Your task to perform on an android device: install app "Messages" Image 0: 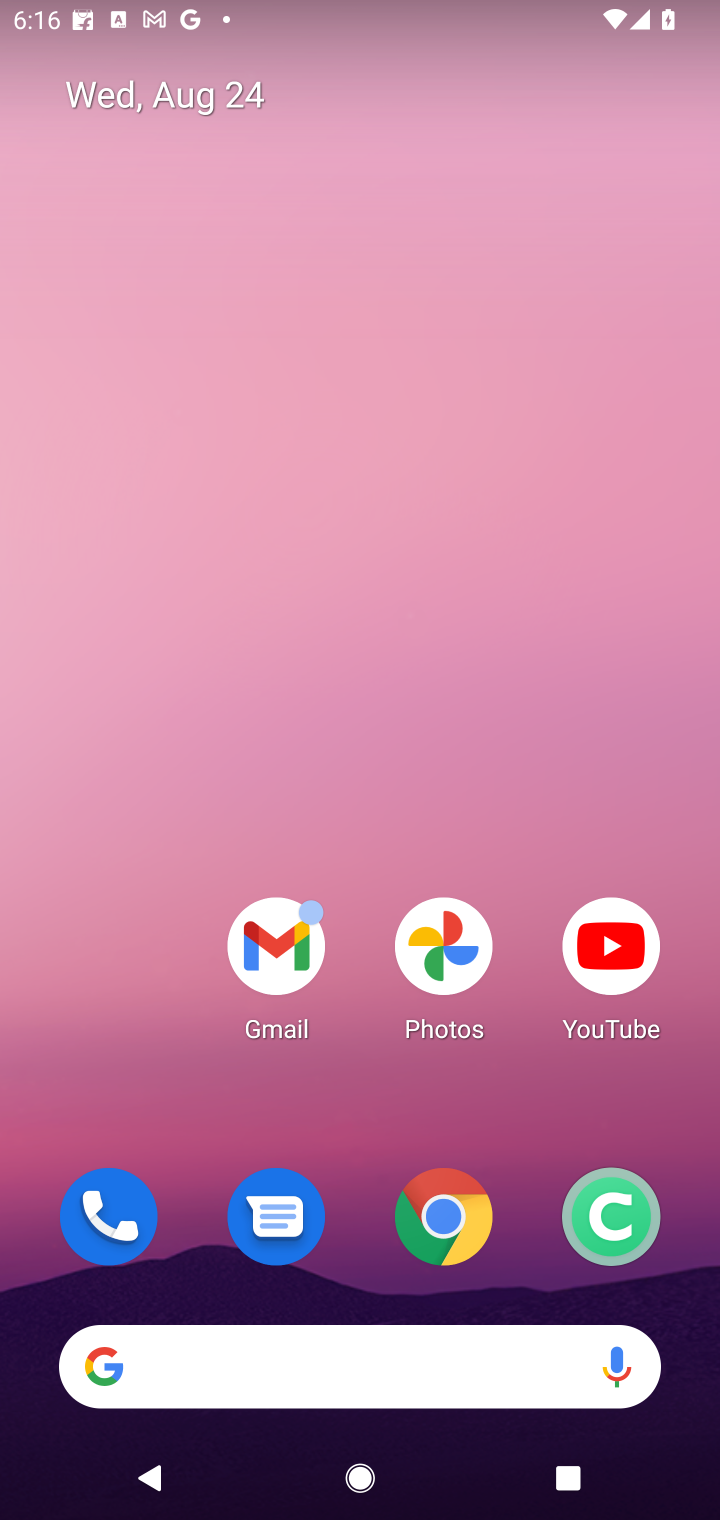
Step 0: drag from (367, 827) to (383, 153)
Your task to perform on an android device: install app "Messages" Image 1: 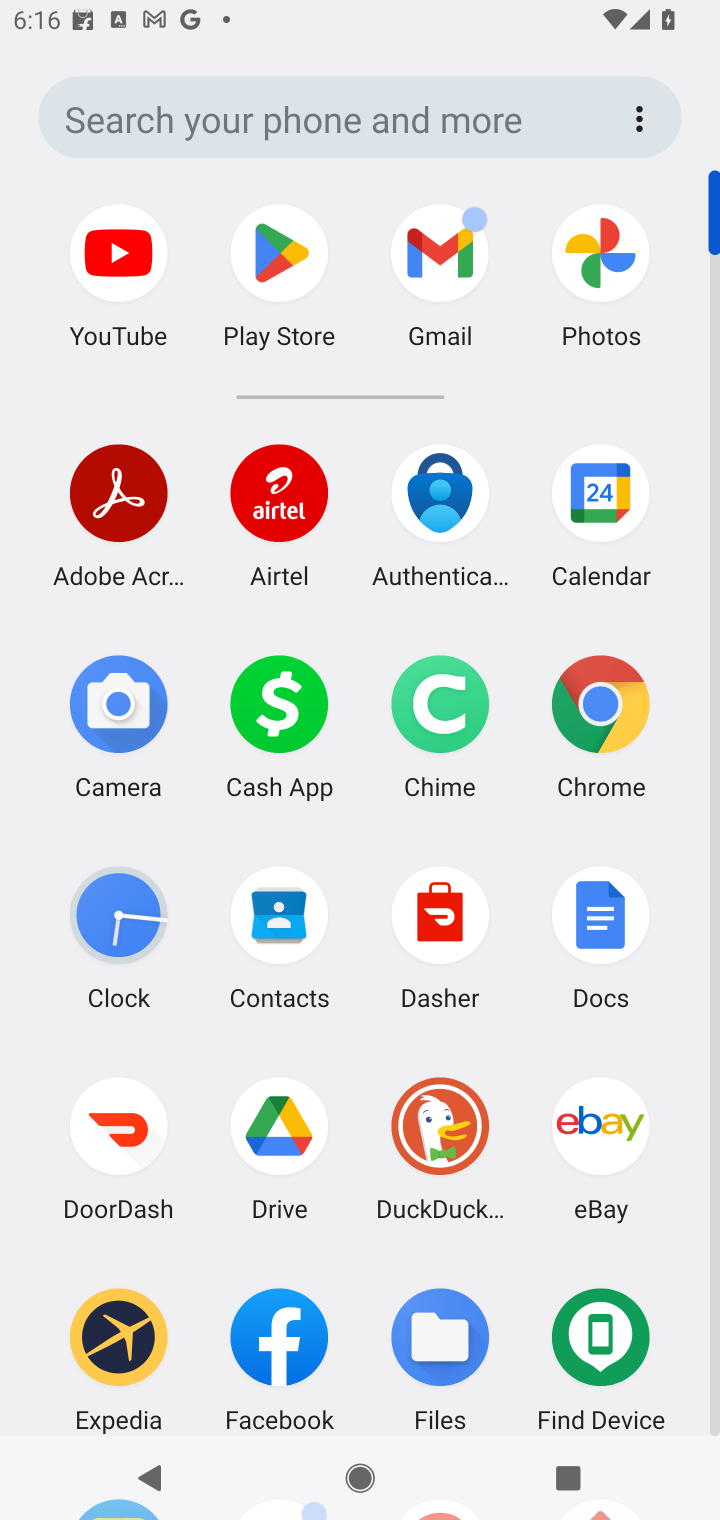
Step 1: click (260, 309)
Your task to perform on an android device: install app "Messages" Image 2: 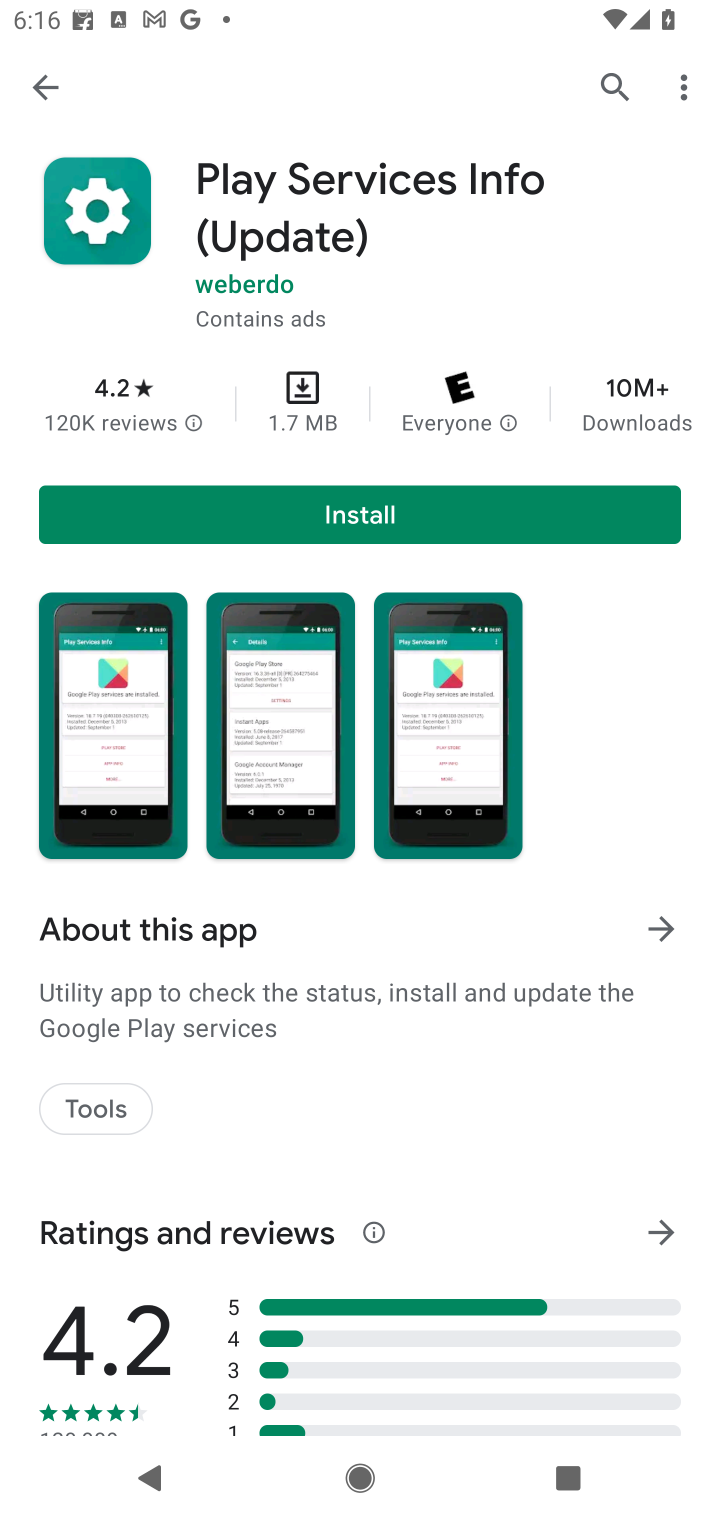
Step 2: click (266, 519)
Your task to perform on an android device: install app "Messages" Image 3: 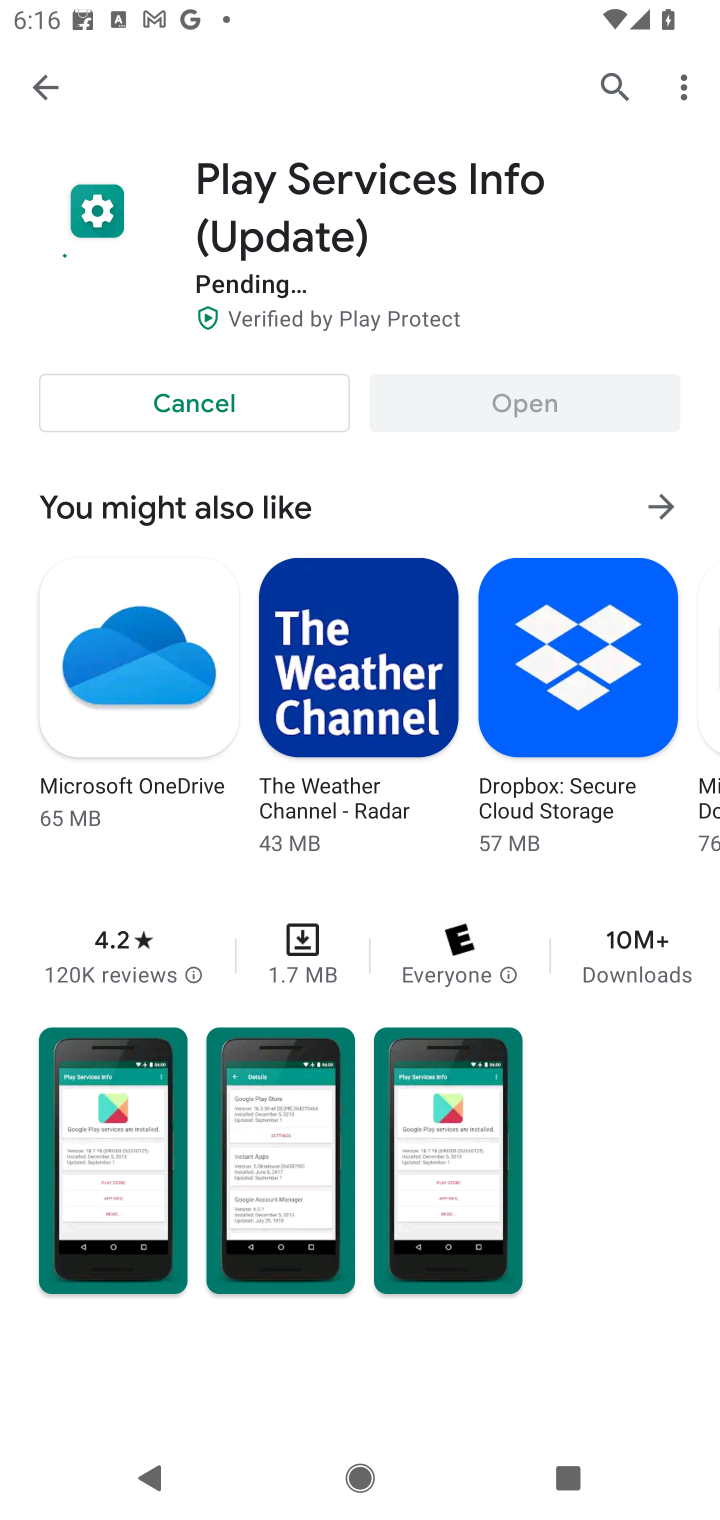
Step 3: click (611, 90)
Your task to perform on an android device: install app "Messages" Image 4: 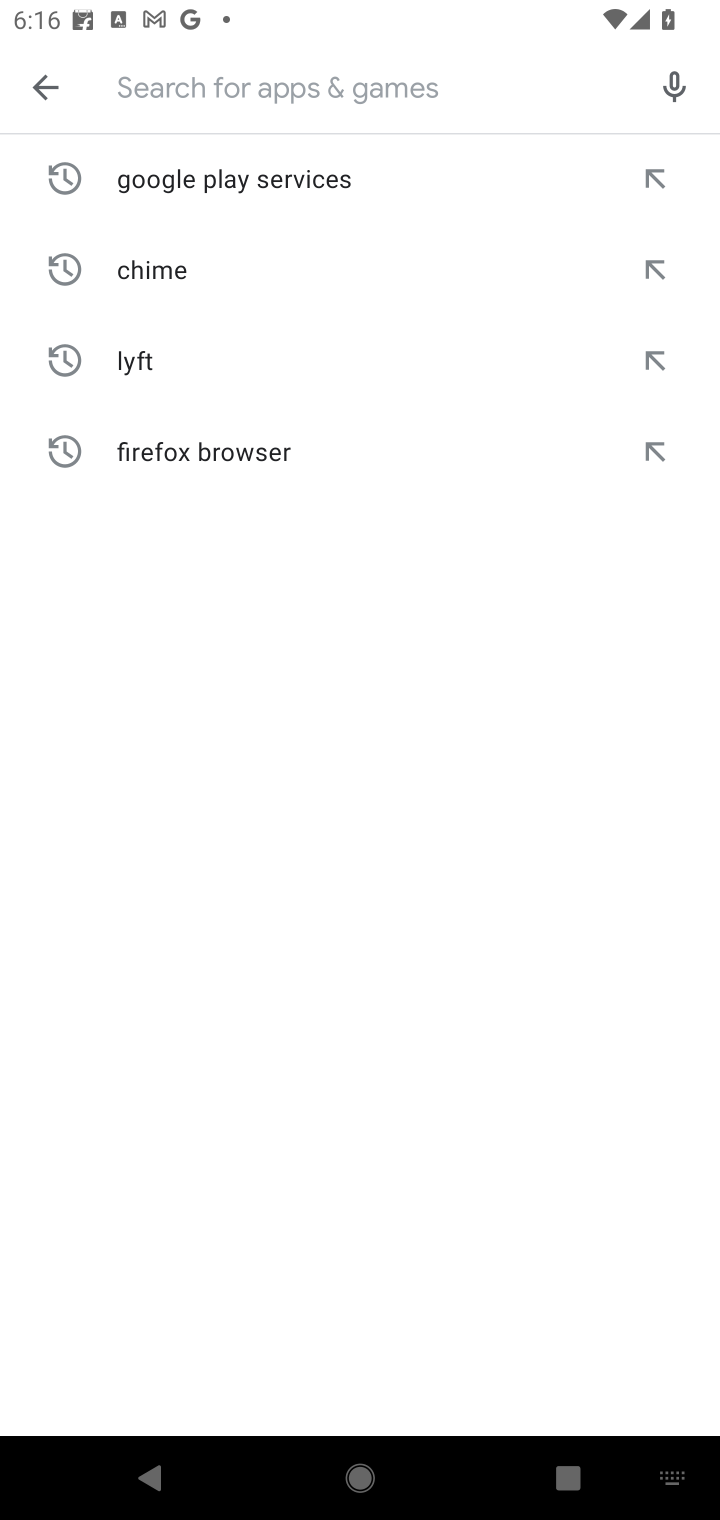
Step 4: type "Messages"
Your task to perform on an android device: install app "Messages" Image 5: 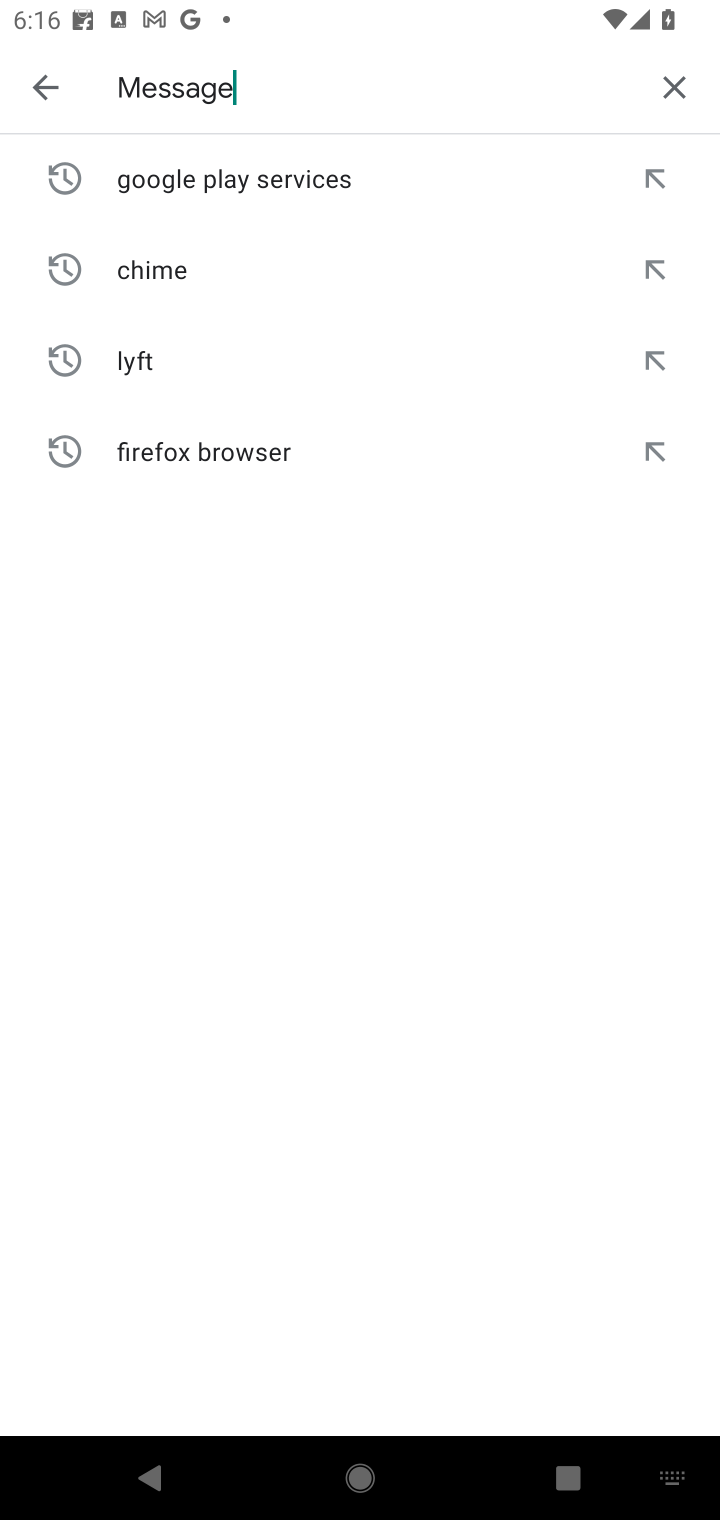
Step 5: type ""
Your task to perform on an android device: install app "Messages" Image 6: 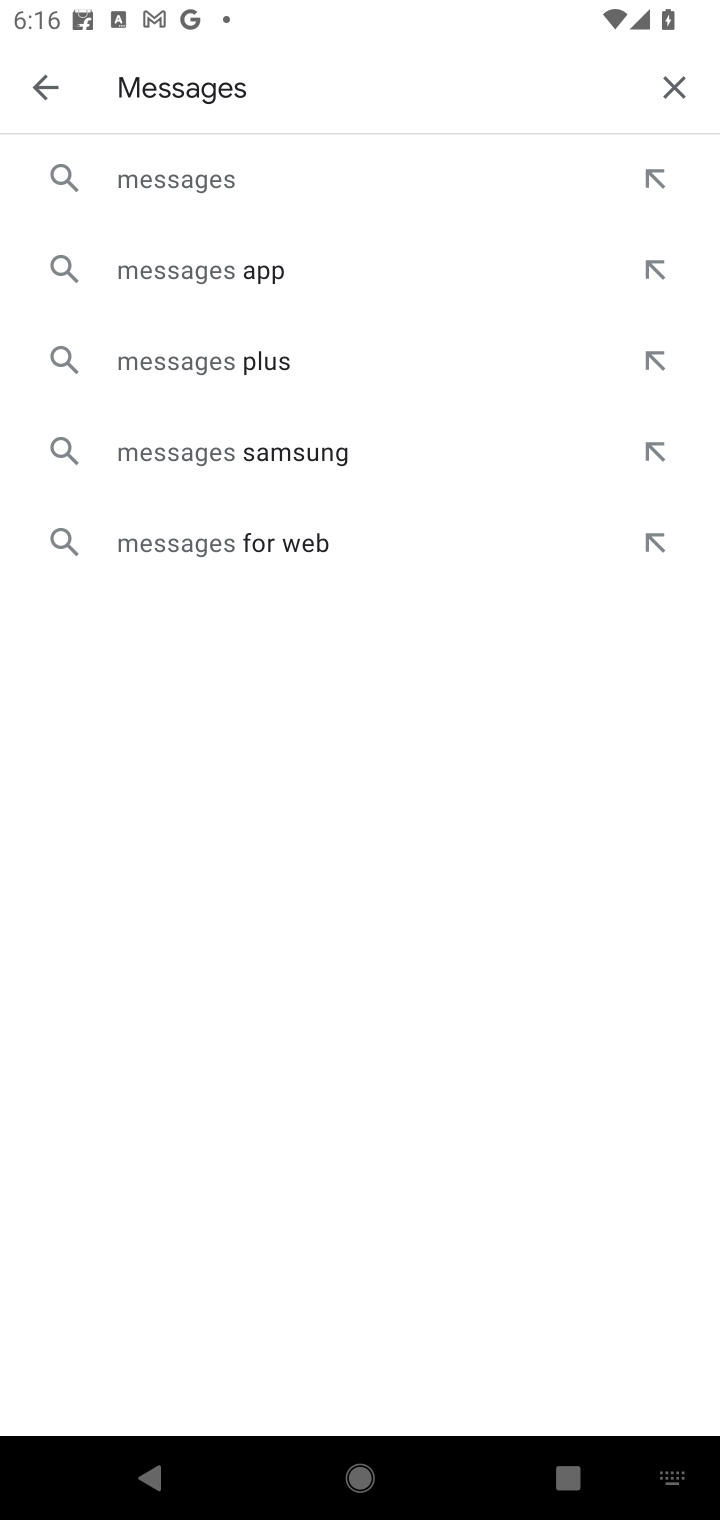
Step 6: click (358, 186)
Your task to perform on an android device: install app "Messages" Image 7: 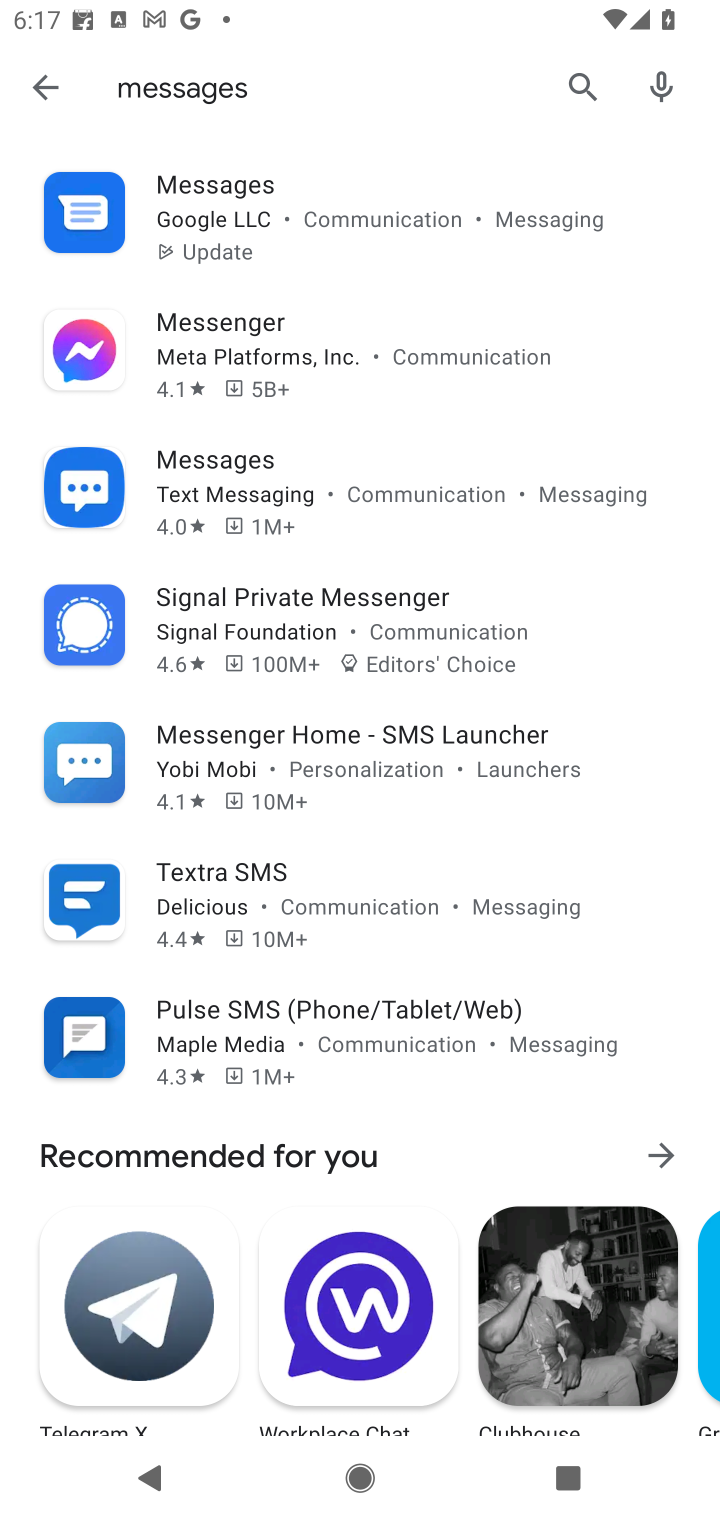
Step 7: click (247, 216)
Your task to perform on an android device: install app "Messages" Image 8: 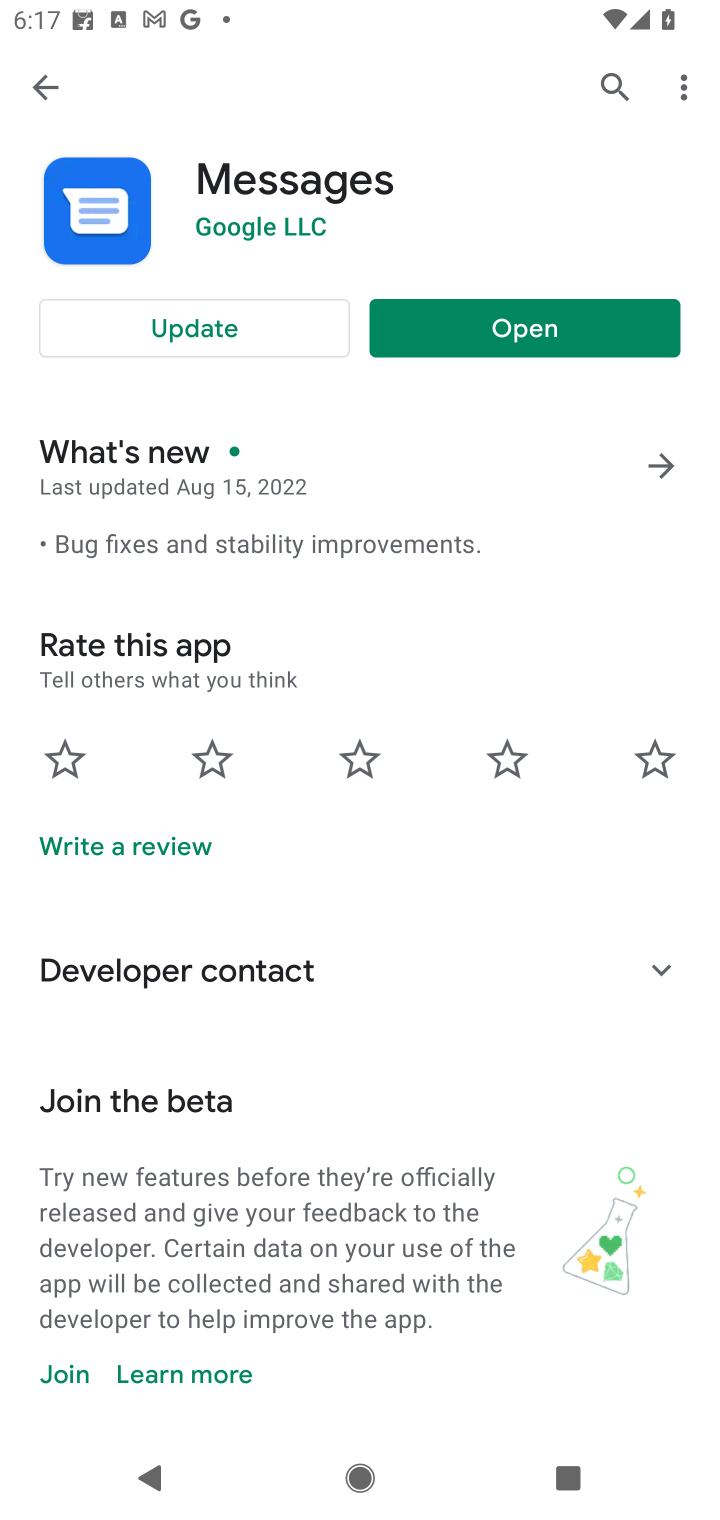
Step 8: task complete